Your task to perform on an android device: Show me productivity apps on the Play Store Image 0: 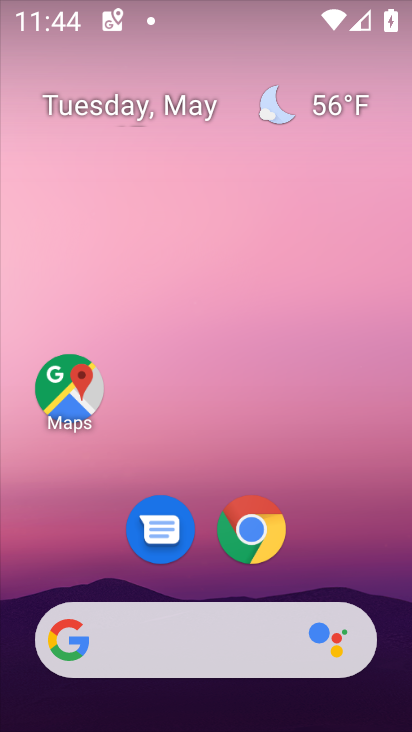
Step 0: click (302, 195)
Your task to perform on an android device: Show me productivity apps on the Play Store Image 1: 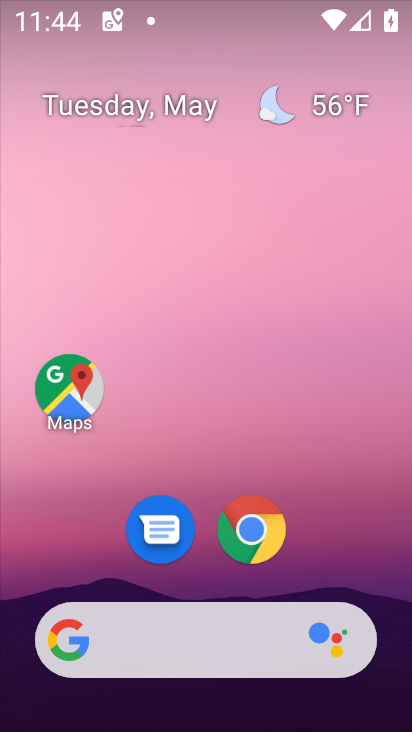
Step 1: drag from (393, 692) to (305, 210)
Your task to perform on an android device: Show me productivity apps on the Play Store Image 2: 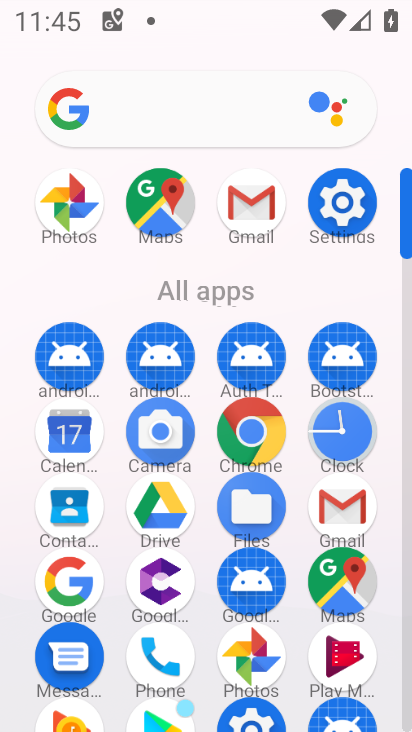
Step 2: drag from (405, 161) to (402, 122)
Your task to perform on an android device: Show me productivity apps on the Play Store Image 3: 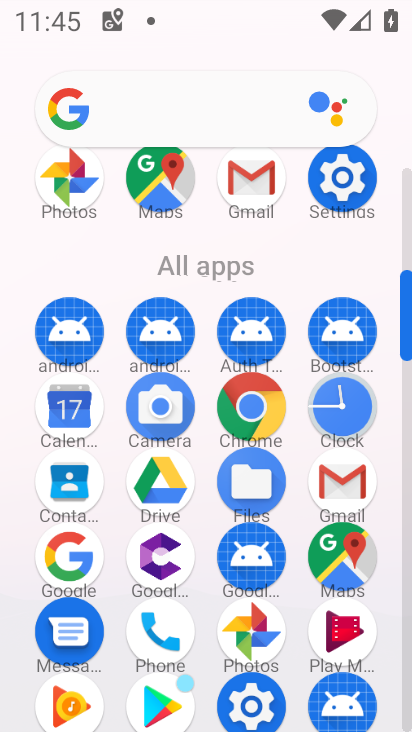
Step 3: drag from (404, 290) to (402, 165)
Your task to perform on an android device: Show me productivity apps on the Play Store Image 4: 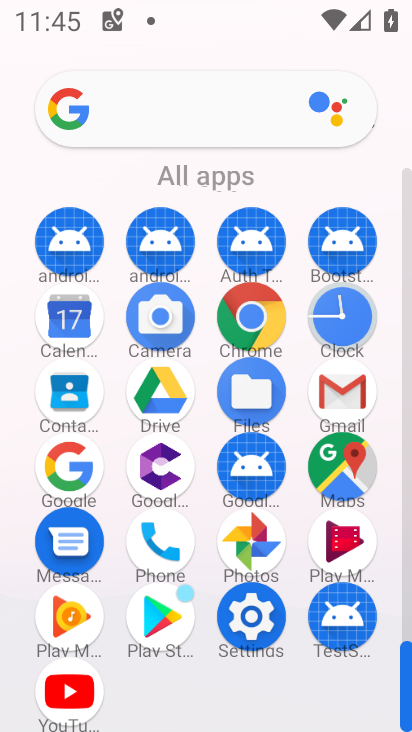
Step 4: click (159, 615)
Your task to perform on an android device: Show me productivity apps on the Play Store Image 5: 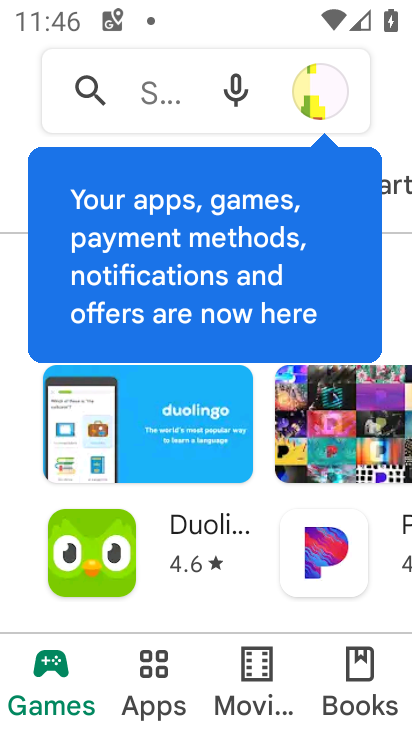
Step 5: click (186, 99)
Your task to perform on an android device: Show me productivity apps on the Play Store Image 6: 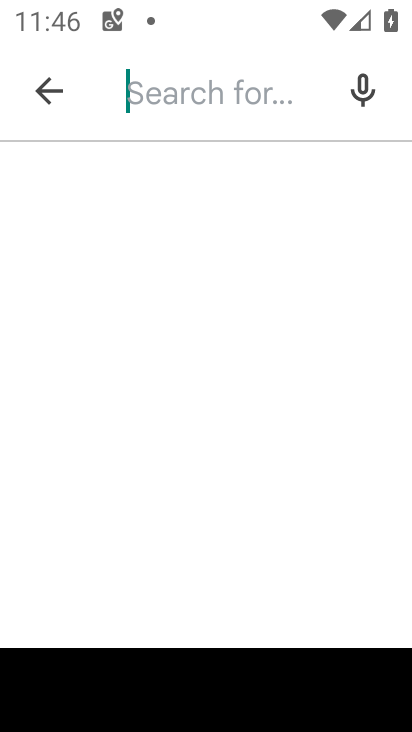
Step 6: type "productivity apps"
Your task to perform on an android device: Show me productivity apps on the Play Store Image 7: 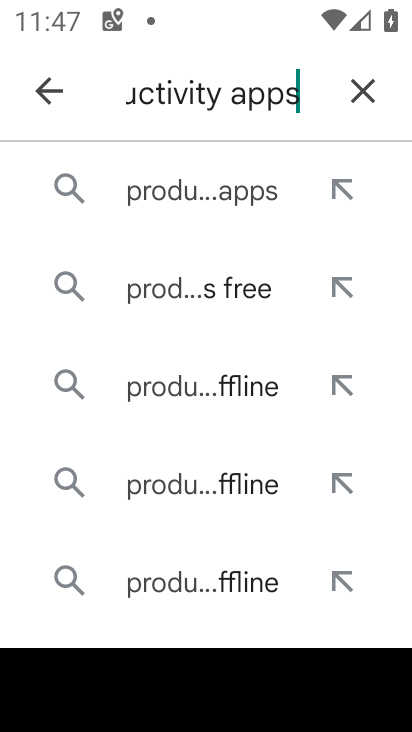
Step 7: click (192, 197)
Your task to perform on an android device: Show me productivity apps on the Play Store Image 8: 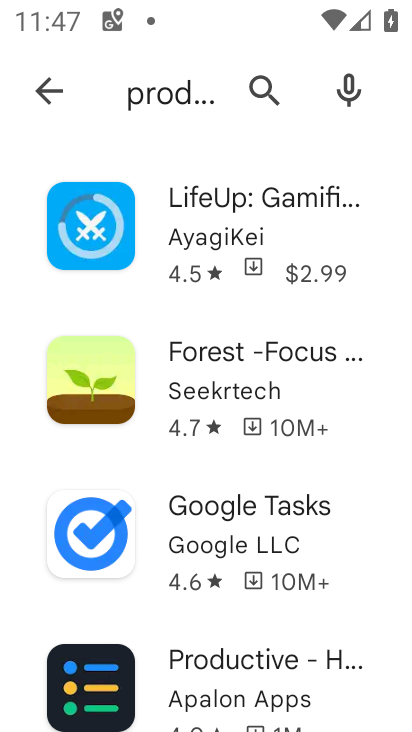
Step 8: task complete